Your task to perform on an android device: all mails in gmail Image 0: 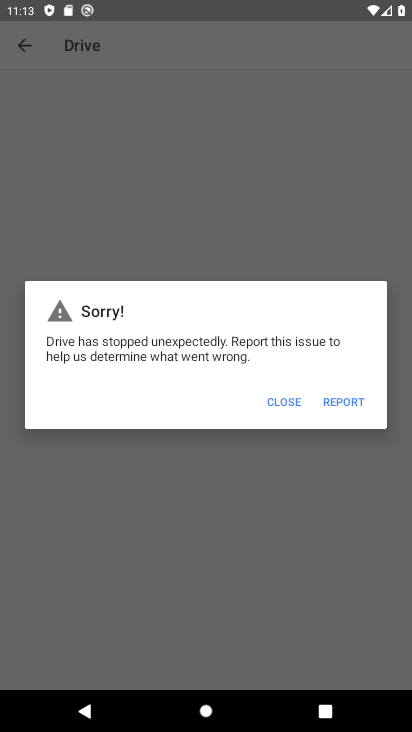
Step 0: press home button
Your task to perform on an android device: all mails in gmail Image 1: 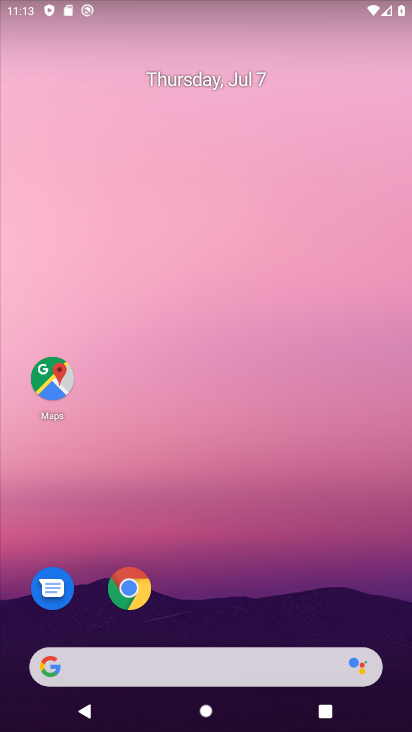
Step 1: drag from (269, 578) to (244, 24)
Your task to perform on an android device: all mails in gmail Image 2: 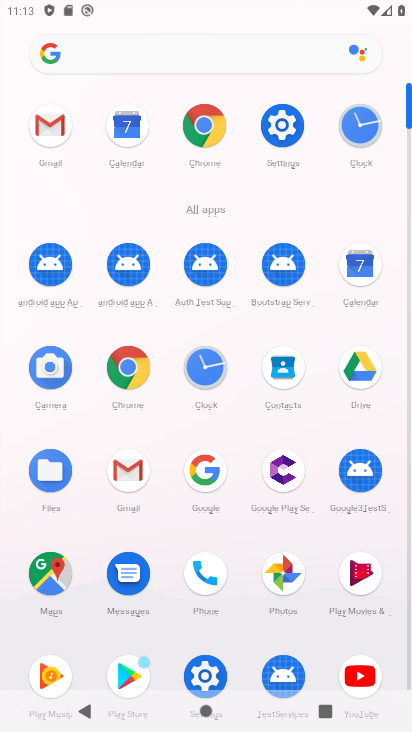
Step 2: click (35, 128)
Your task to perform on an android device: all mails in gmail Image 3: 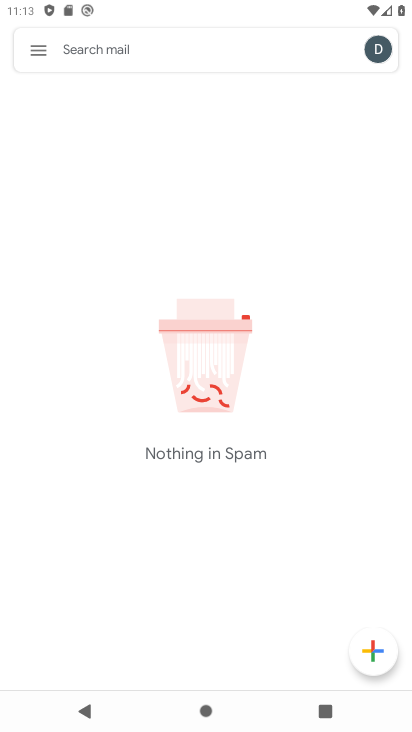
Step 3: click (33, 42)
Your task to perform on an android device: all mails in gmail Image 4: 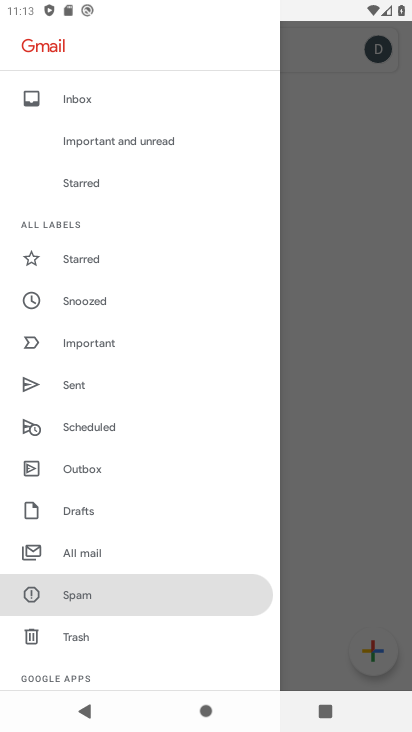
Step 4: click (68, 548)
Your task to perform on an android device: all mails in gmail Image 5: 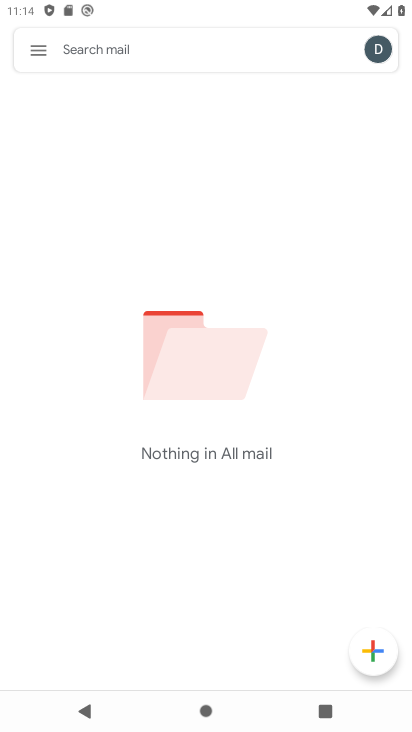
Step 5: task complete